Your task to perform on an android device: Go to notification settings Image 0: 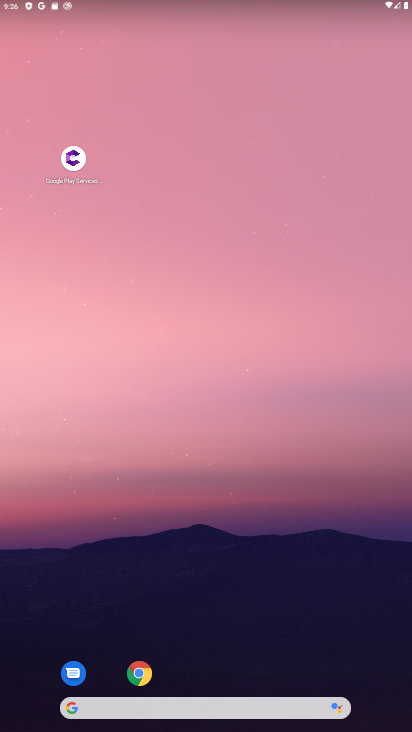
Step 0: drag from (199, 554) to (264, 113)
Your task to perform on an android device: Go to notification settings Image 1: 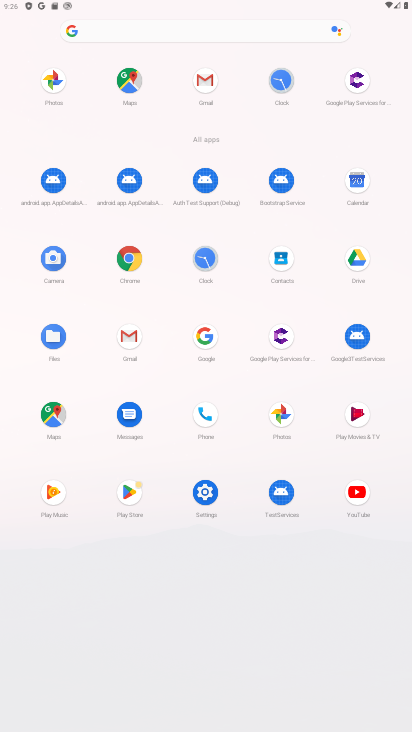
Step 1: click (203, 514)
Your task to perform on an android device: Go to notification settings Image 2: 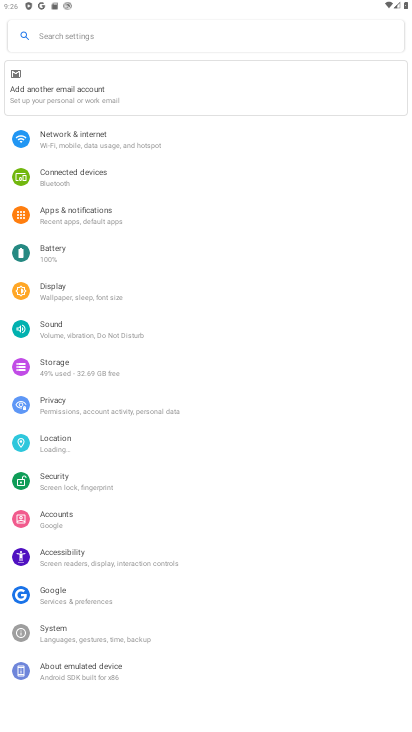
Step 2: click (66, 208)
Your task to perform on an android device: Go to notification settings Image 3: 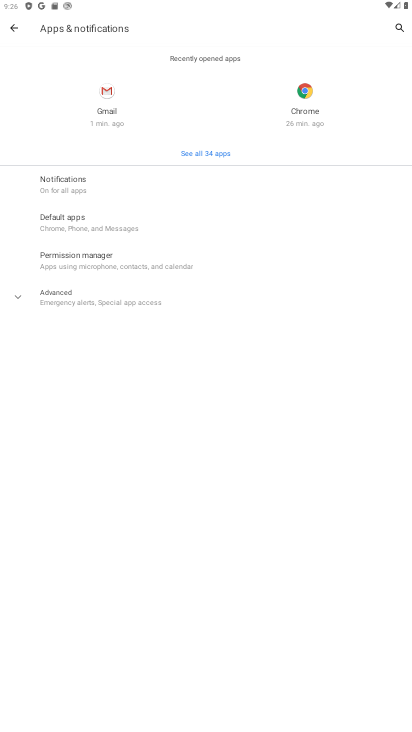
Step 3: task complete